Your task to perform on an android device: all mails in gmail Image 0: 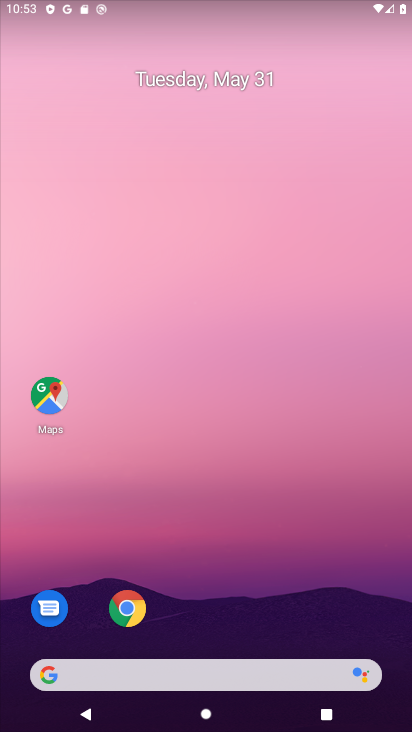
Step 0: drag from (263, 6) to (209, 546)
Your task to perform on an android device: all mails in gmail Image 1: 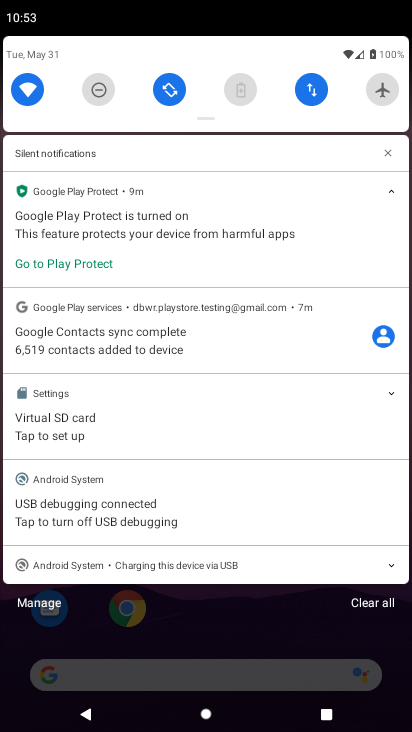
Step 1: drag from (212, 112) to (209, 583)
Your task to perform on an android device: all mails in gmail Image 2: 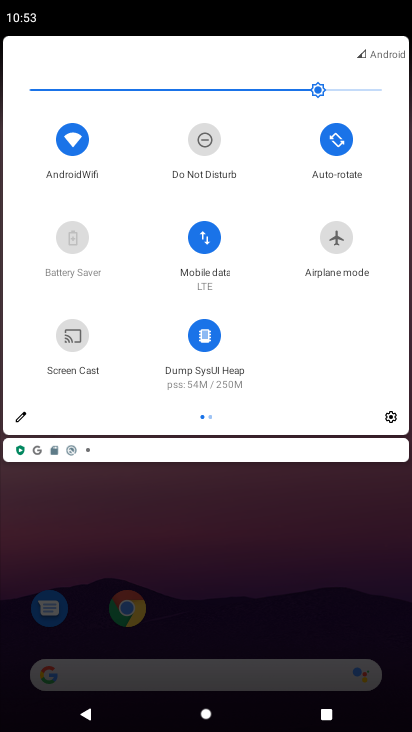
Step 2: drag from (232, 567) to (265, 74)
Your task to perform on an android device: all mails in gmail Image 3: 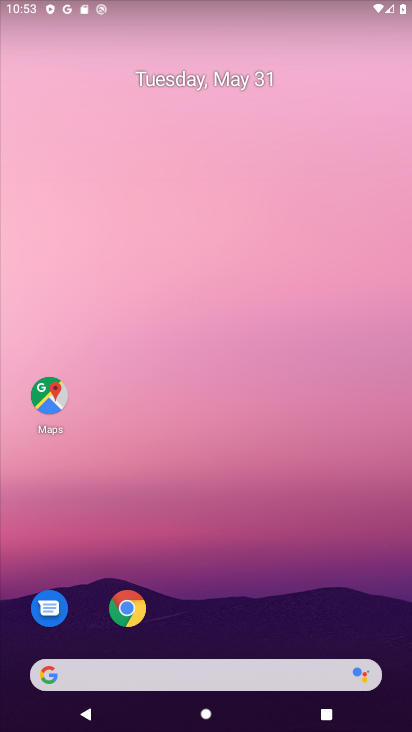
Step 3: drag from (225, 590) to (244, 7)
Your task to perform on an android device: all mails in gmail Image 4: 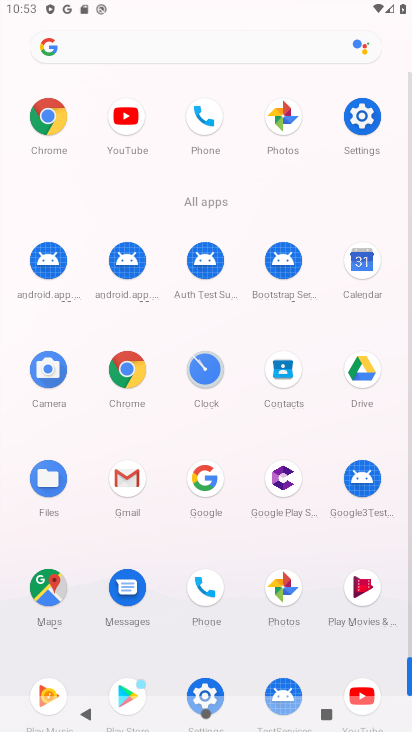
Step 4: click (120, 475)
Your task to perform on an android device: all mails in gmail Image 5: 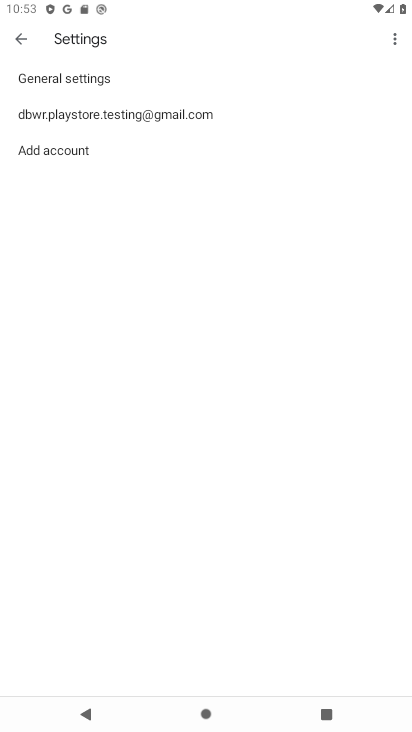
Step 5: click (19, 46)
Your task to perform on an android device: all mails in gmail Image 6: 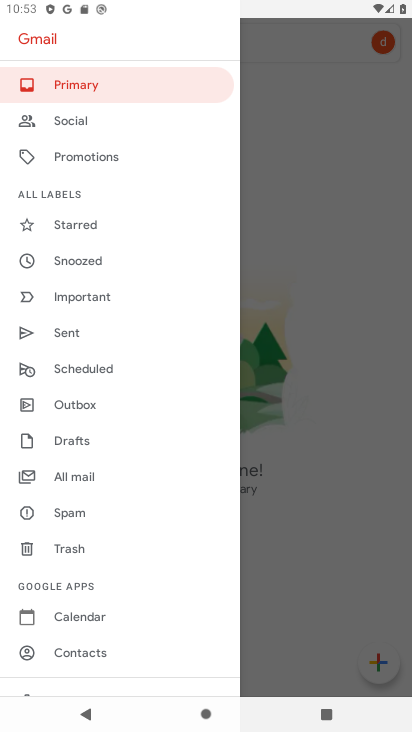
Step 6: click (81, 471)
Your task to perform on an android device: all mails in gmail Image 7: 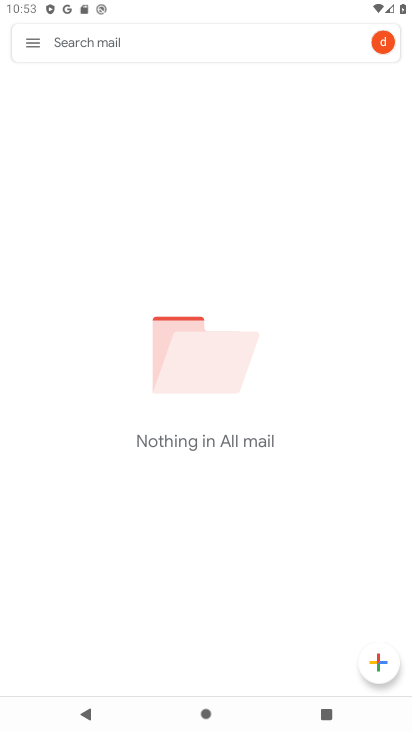
Step 7: task complete